Your task to perform on an android device: change the clock style Image 0: 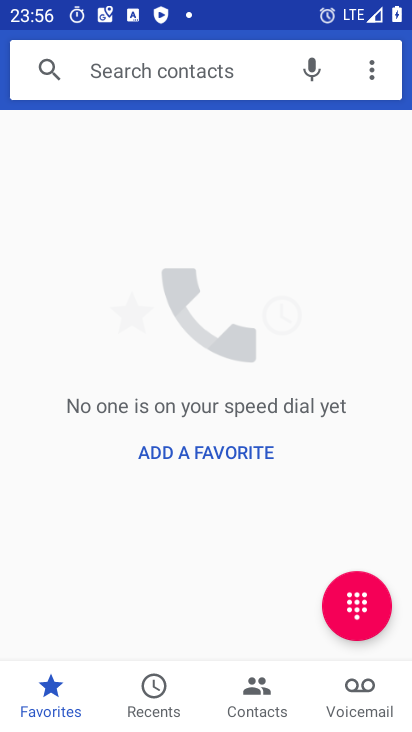
Step 0: press home button
Your task to perform on an android device: change the clock style Image 1: 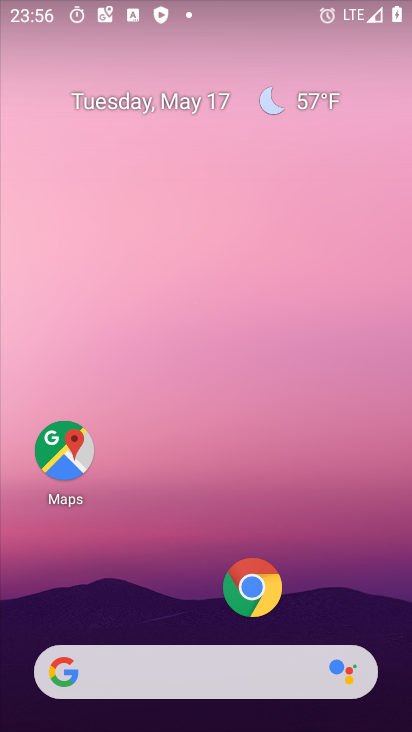
Step 1: drag from (64, 472) to (194, 234)
Your task to perform on an android device: change the clock style Image 2: 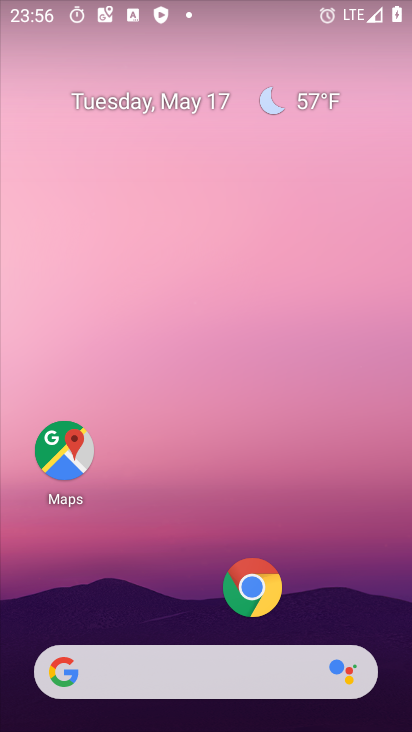
Step 2: drag from (24, 468) to (158, 164)
Your task to perform on an android device: change the clock style Image 3: 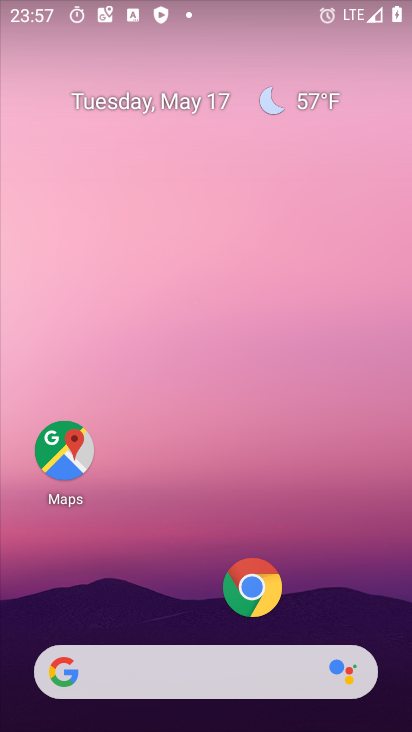
Step 3: drag from (18, 557) to (242, 175)
Your task to perform on an android device: change the clock style Image 4: 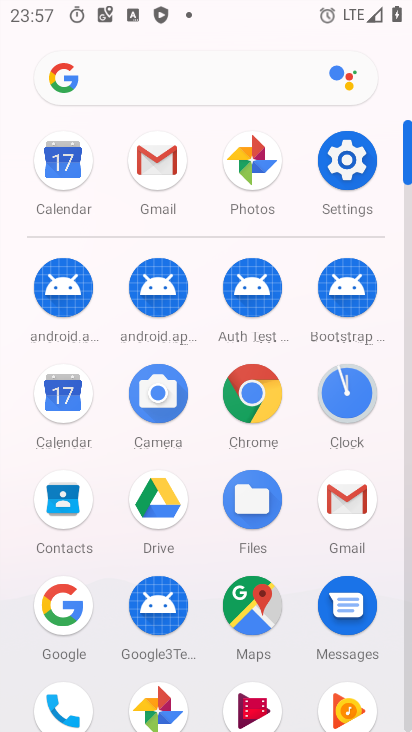
Step 4: click (346, 394)
Your task to perform on an android device: change the clock style Image 5: 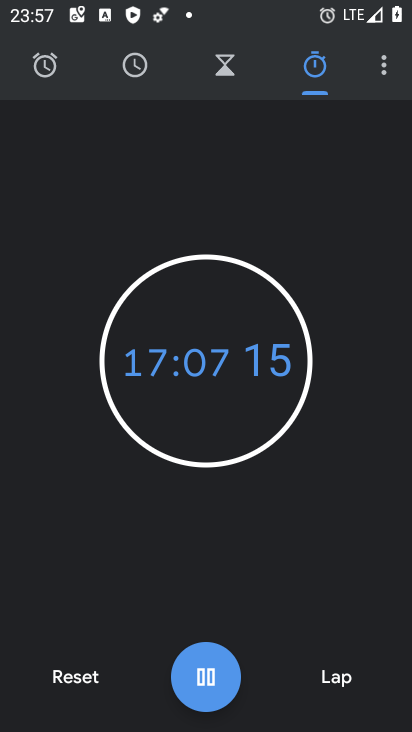
Step 5: click (389, 74)
Your task to perform on an android device: change the clock style Image 6: 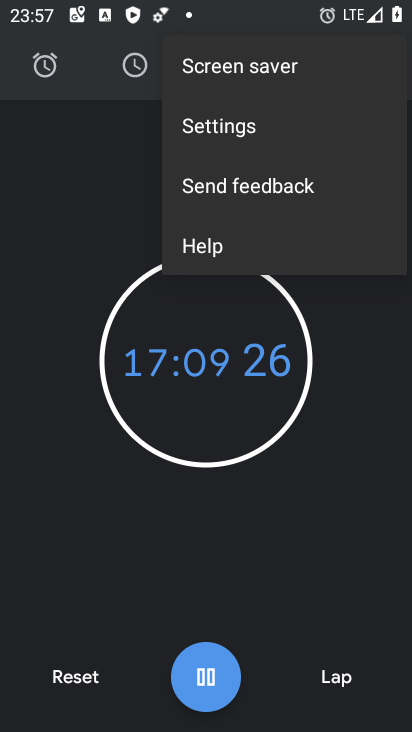
Step 6: click (253, 140)
Your task to perform on an android device: change the clock style Image 7: 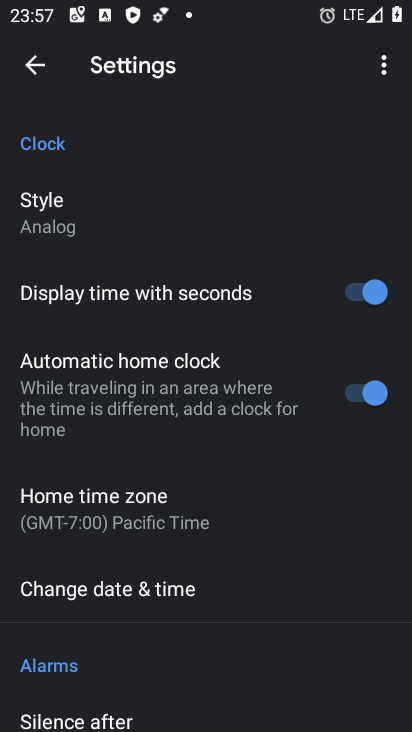
Step 7: click (76, 227)
Your task to perform on an android device: change the clock style Image 8: 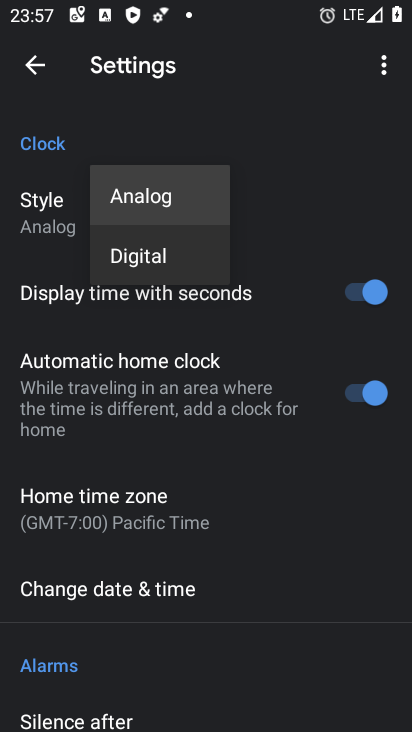
Step 8: click (127, 250)
Your task to perform on an android device: change the clock style Image 9: 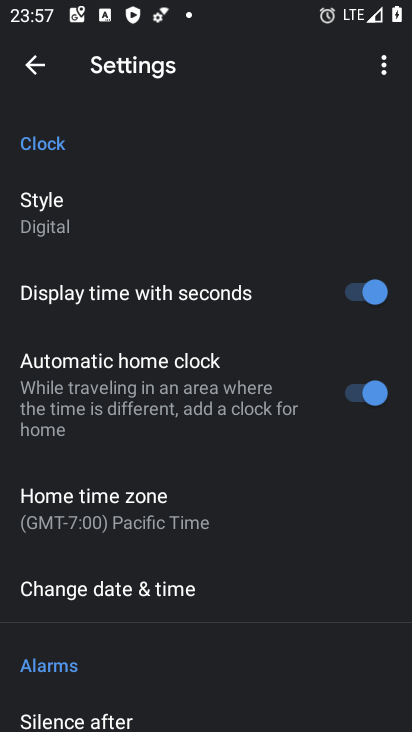
Step 9: task complete